Your task to perform on an android device: Open Yahoo.com Image 0: 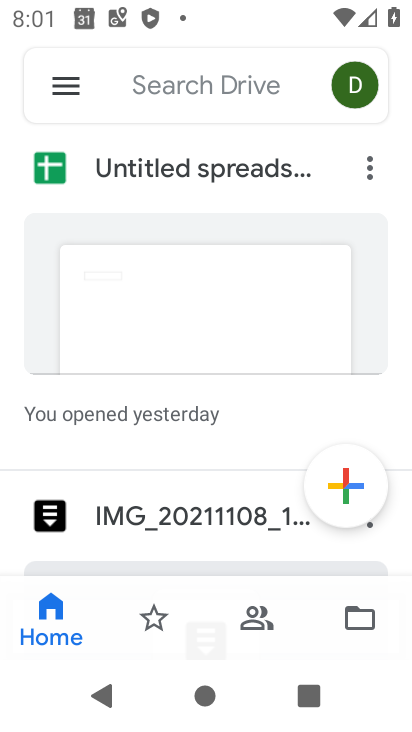
Step 0: press home button
Your task to perform on an android device: Open Yahoo.com Image 1: 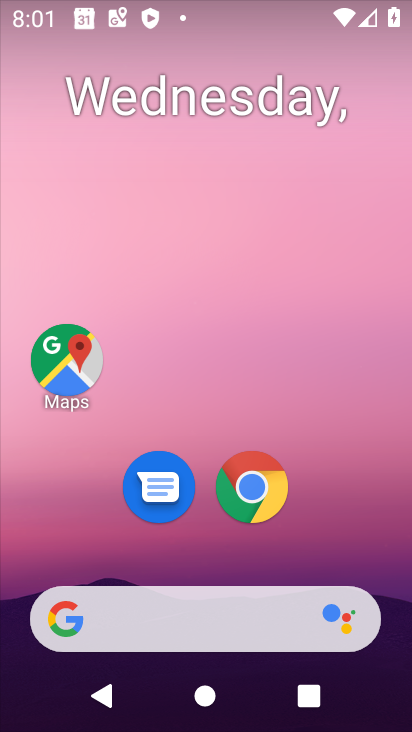
Step 1: drag from (347, 546) to (329, 193)
Your task to perform on an android device: Open Yahoo.com Image 2: 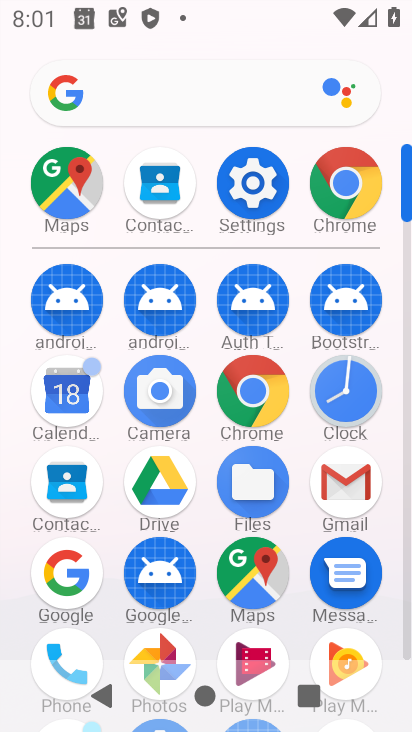
Step 2: click (367, 210)
Your task to perform on an android device: Open Yahoo.com Image 3: 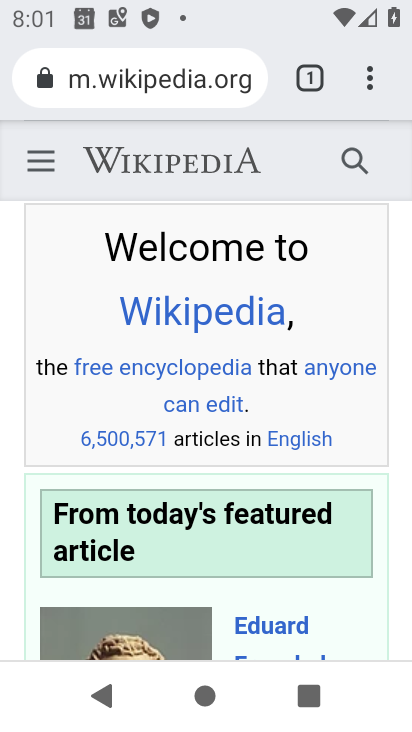
Step 3: task complete